Your task to perform on an android device: toggle airplane mode Image 0: 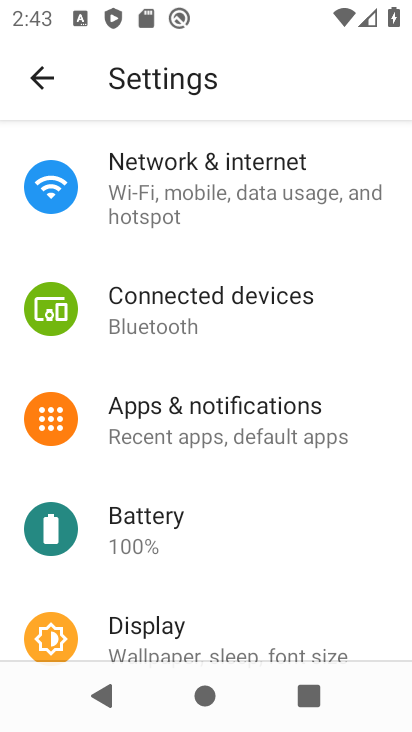
Step 0: click (212, 199)
Your task to perform on an android device: toggle airplane mode Image 1: 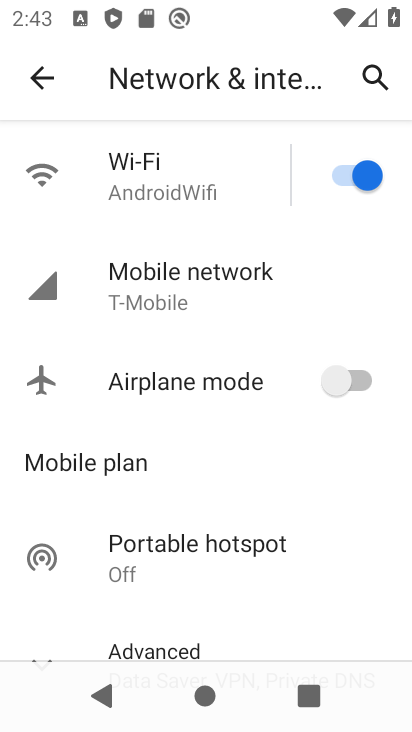
Step 1: click (367, 378)
Your task to perform on an android device: toggle airplane mode Image 2: 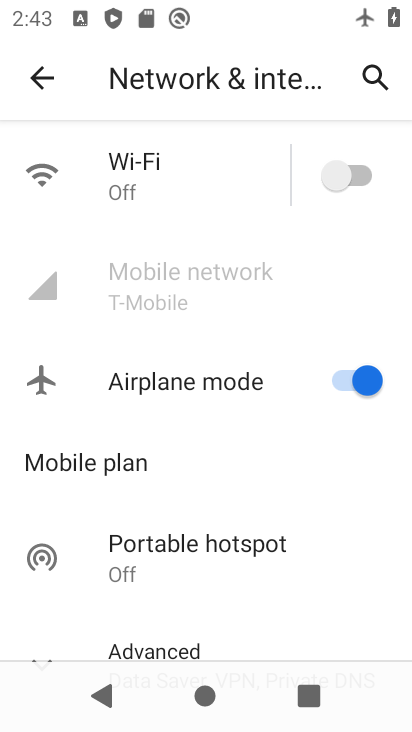
Step 2: task complete